Your task to perform on an android device: Open CNN.com Image 0: 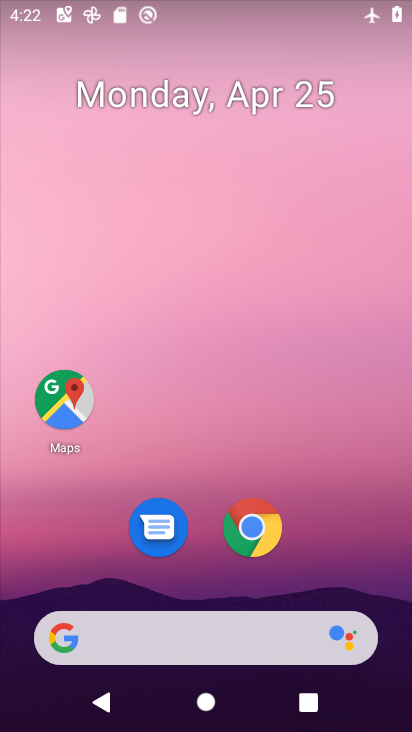
Step 0: click (252, 526)
Your task to perform on an android device: Open CNN.com Image 1: 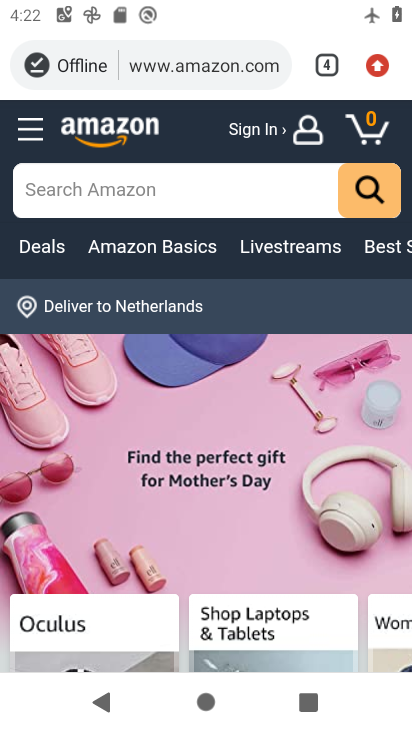
Step 1: click (150, 73)
Your task to perform on an android device: Open CNN.com Image 2: 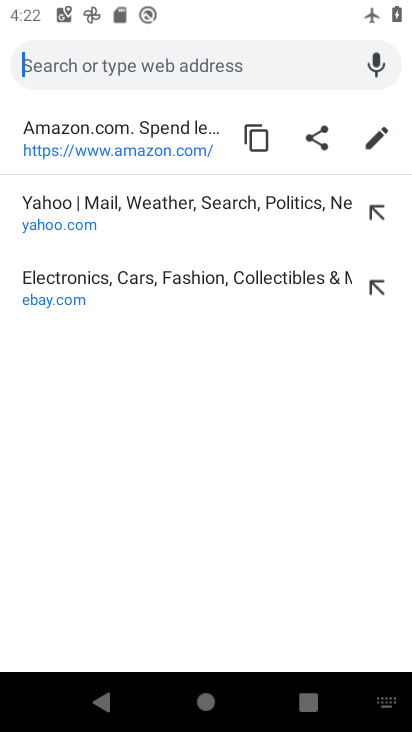
Step 2: type "cnn.com"
Your task to perform on an android device: Open CNN.com Image 3: 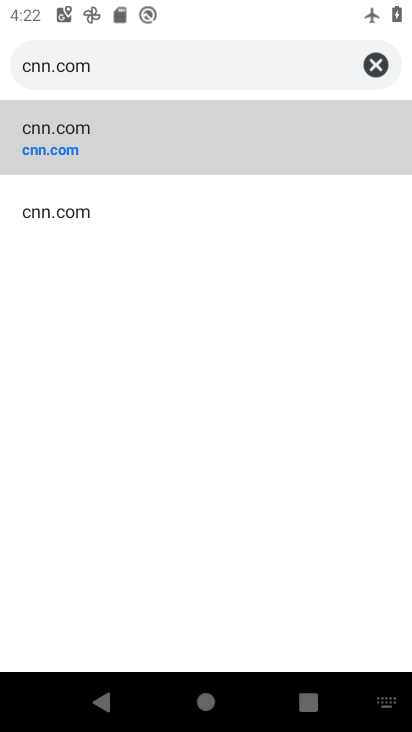
Step 3: click (60, 132)
Your task to perform on an android device: Open CNN.com Image 4: 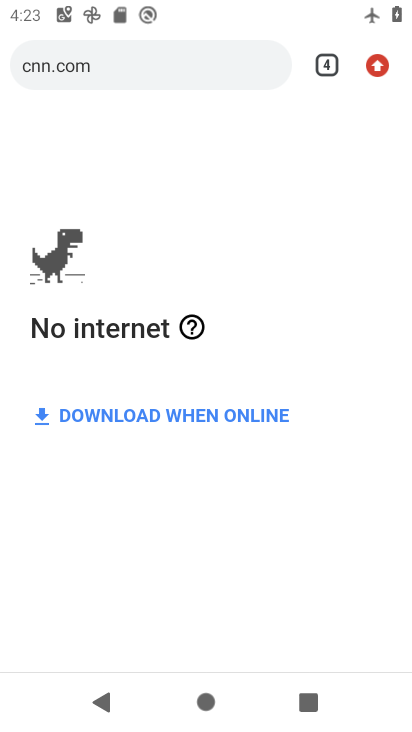
Step 4: task complete